Your task to perform on an android device: Go to Reddit.com Image 0: 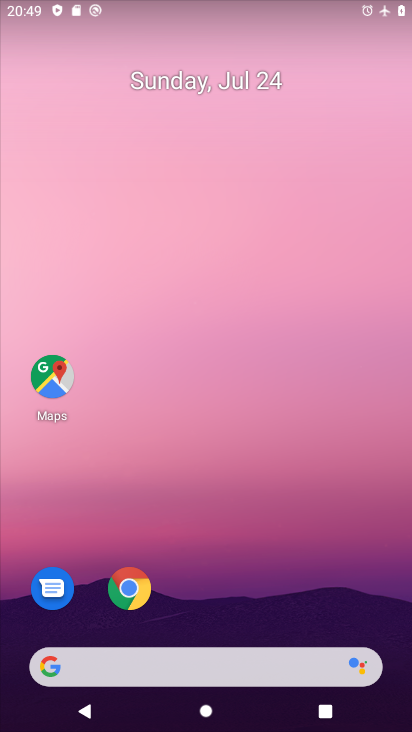
Step 0: click (142, 586)
Your task to perform on an android device: Go to Reddit.com Image 1: 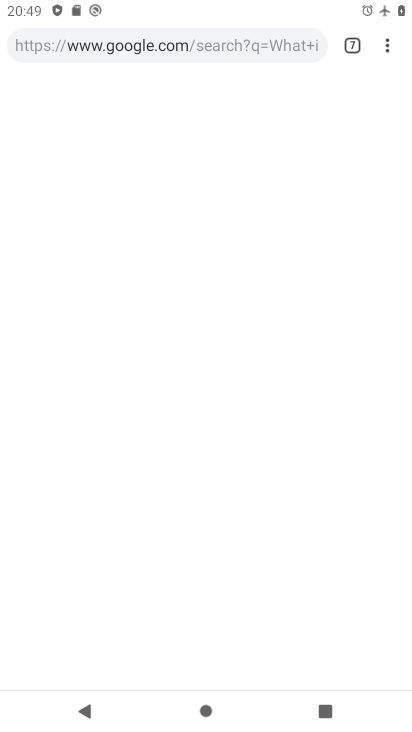
Step 1: click (399, 56)
Your task to perform on an android device: Go to Reddit.com Image 2: 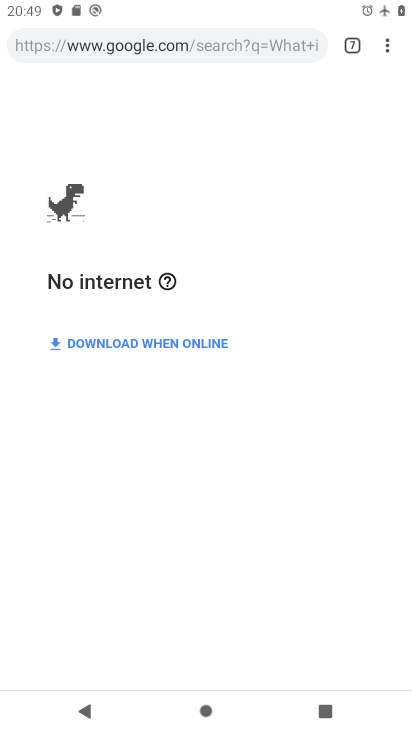
Step 2: click (379, 36)
Your task to perform on an android device: Go to Reddit.com Image 3: 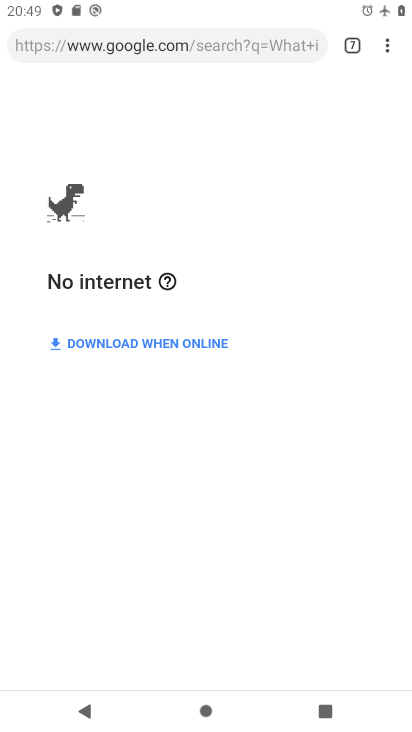
Step 3: click (402, 38)
Your task to perform on an android device: Go to Reddit.com Image 4: 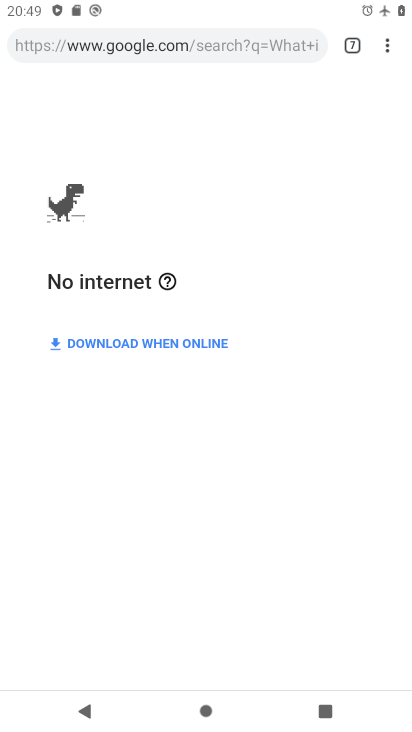
Step 4: click (390, 49)
Your task to perform on an android device: Go to Reddit.com Image 5: 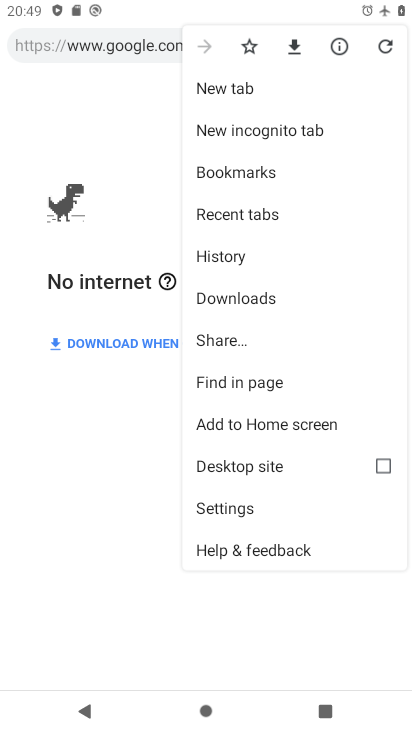
Step 5: click (235, 93)
Your task to perform on an android device: Go to Reddit.com Image 6: 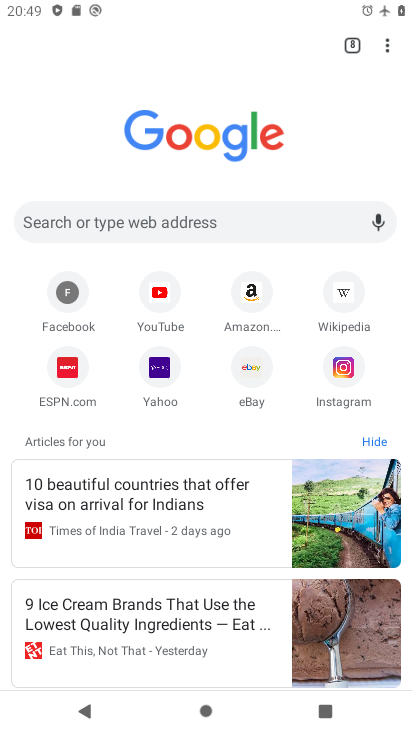
Step 6: click (159, 224)
Your task to perform on an android device: Go to Reddit.com Image 7: 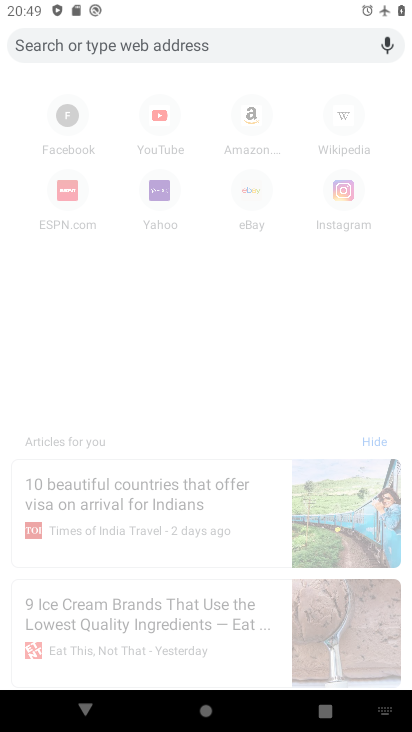
Step 7: type "Reddit.com "
Your task to perform on an android device: Go to Reddit.com Image 8: 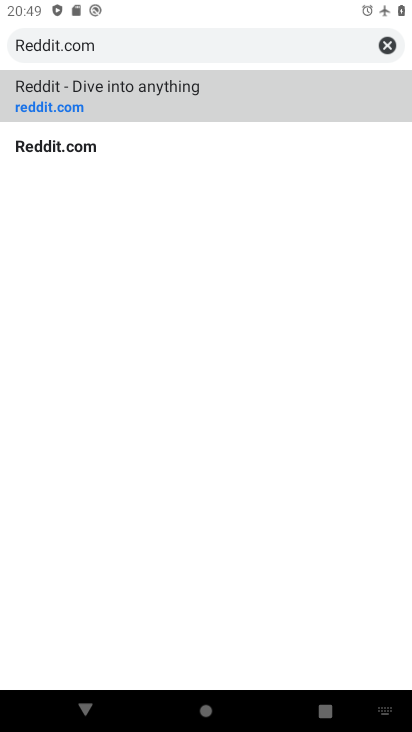
Step 8: click (137, 80)
Your task to perform on an android device: Go to Reddit.com Image 9: 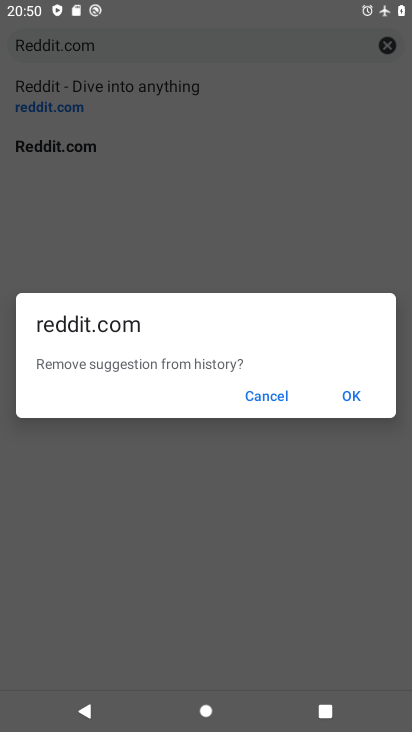
Step 9: click (344, 394)
Your task to perform on an android device: Go to Reddit.com Image 10: 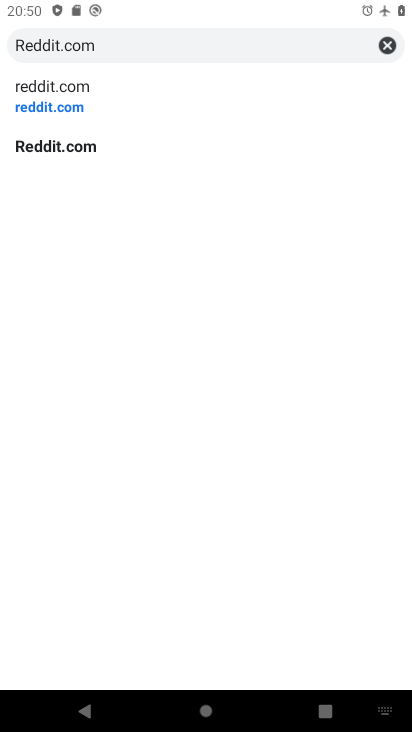
Step 10: click (33, 97)
Your task to perform on an android device: Go to Reddit.com Image 11: 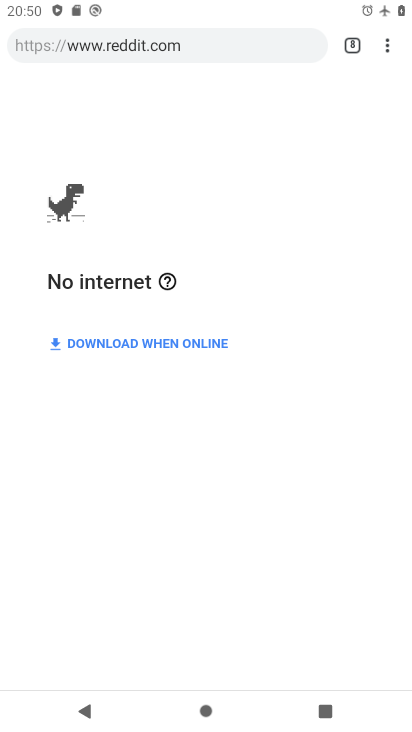
Step 11: task complete